Your task to perform on an android device: What's the weather today? Image 0: 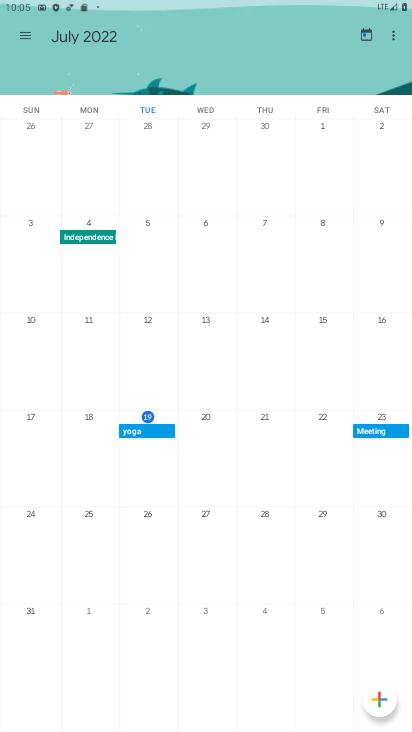
Step 0: press home button
Your task to perform on an android device: What's the weather today? Image 1: 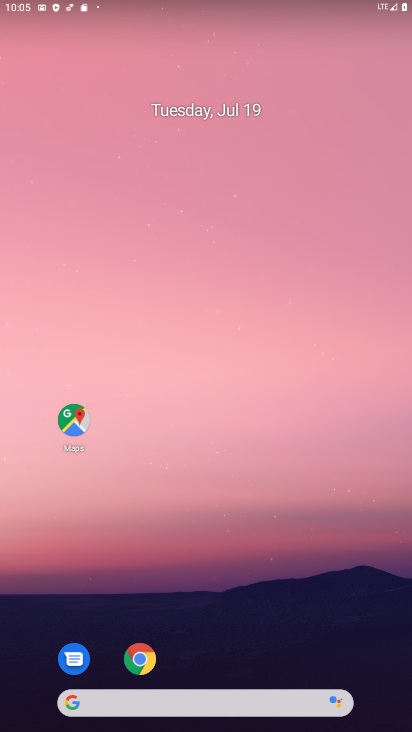
Step 1: click (137, 703)
Your task to perform on an android device: What's the weather today? Image 2: 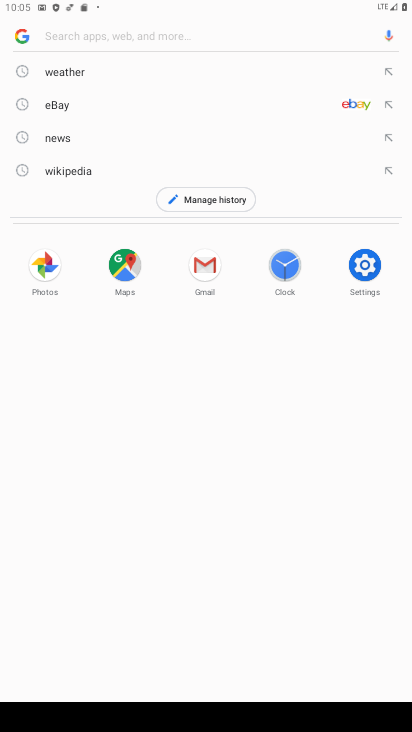
Step 2: type "What's the weather today?"
Your task to perform on an android device: What's the weather today? Image 3: 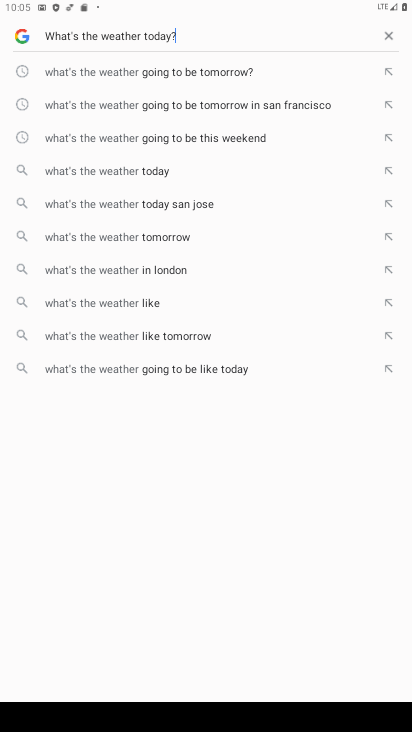
Step 3: press enter
Your task to perform on an android device: What's the weather today? Image 4: 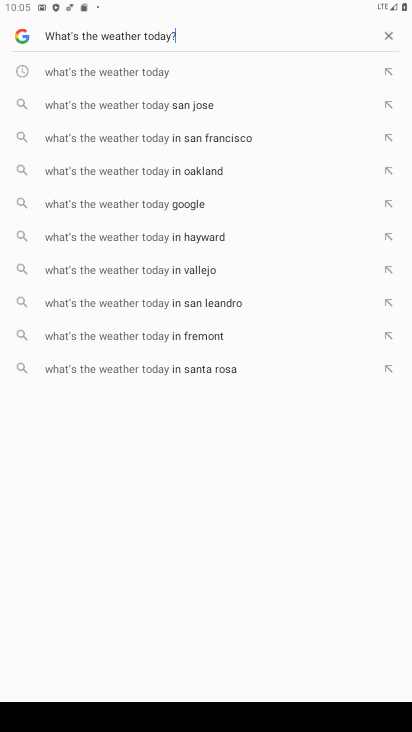
Step 4: type ""
Your task to perform on an android device: What's the weather today? Image 5: 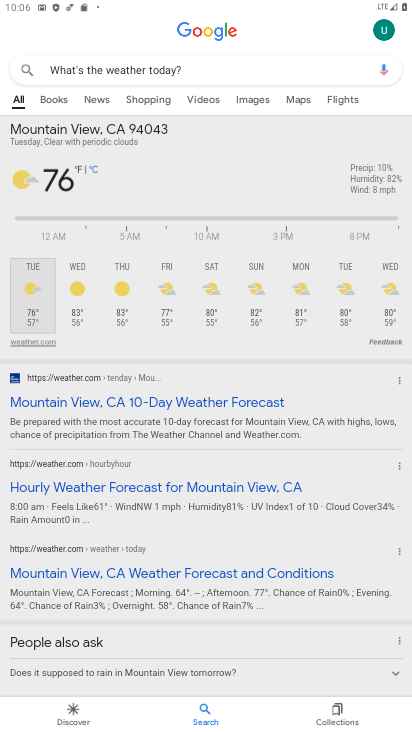
Step 5: task complete